Your task to perform on an android device: Open eBay Image 0: 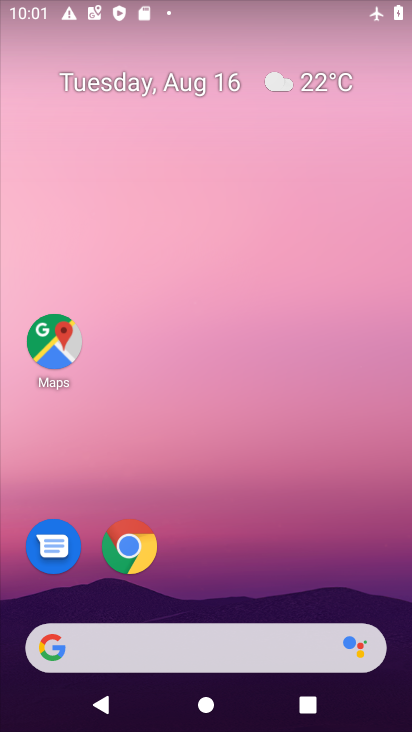
Step 0: drag from (208, 555) to (241, 3)
Your task to perform on an android device: Open eBay Image 1: 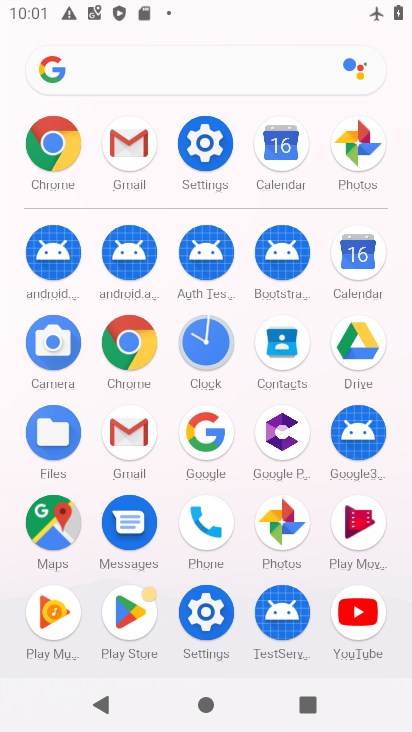
Step 1: press home button
Your task to perform on an android device: Open eBay Image 2: 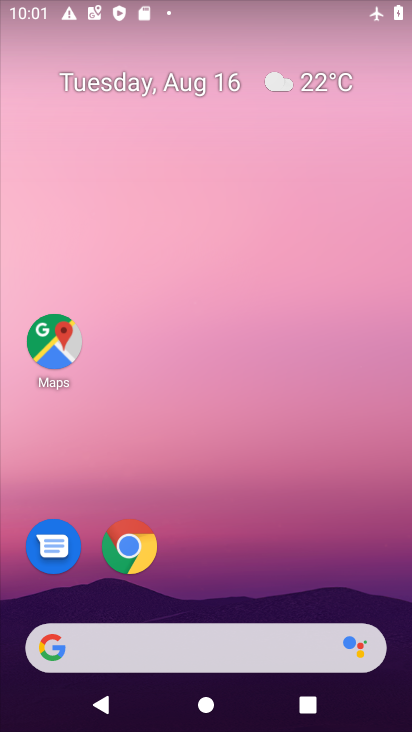
Step 2: click (242, 656)
Your task to perform on an android device: Open eBay Image 3: 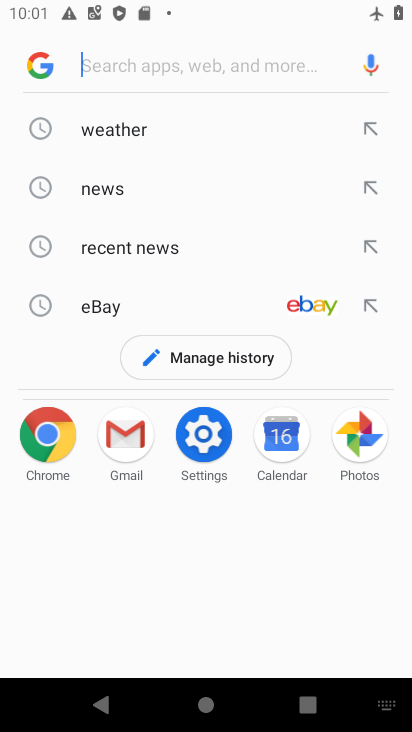
Step 3: click (220, 307)
Your task to perform on an android device: Open eBay Image 4: 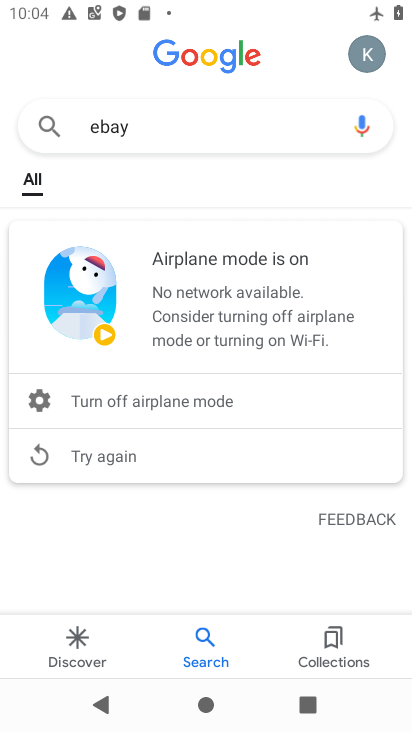
Step 4: task complete